Your task to perform on an android device: turn pop-ups off in chrome Image 0: 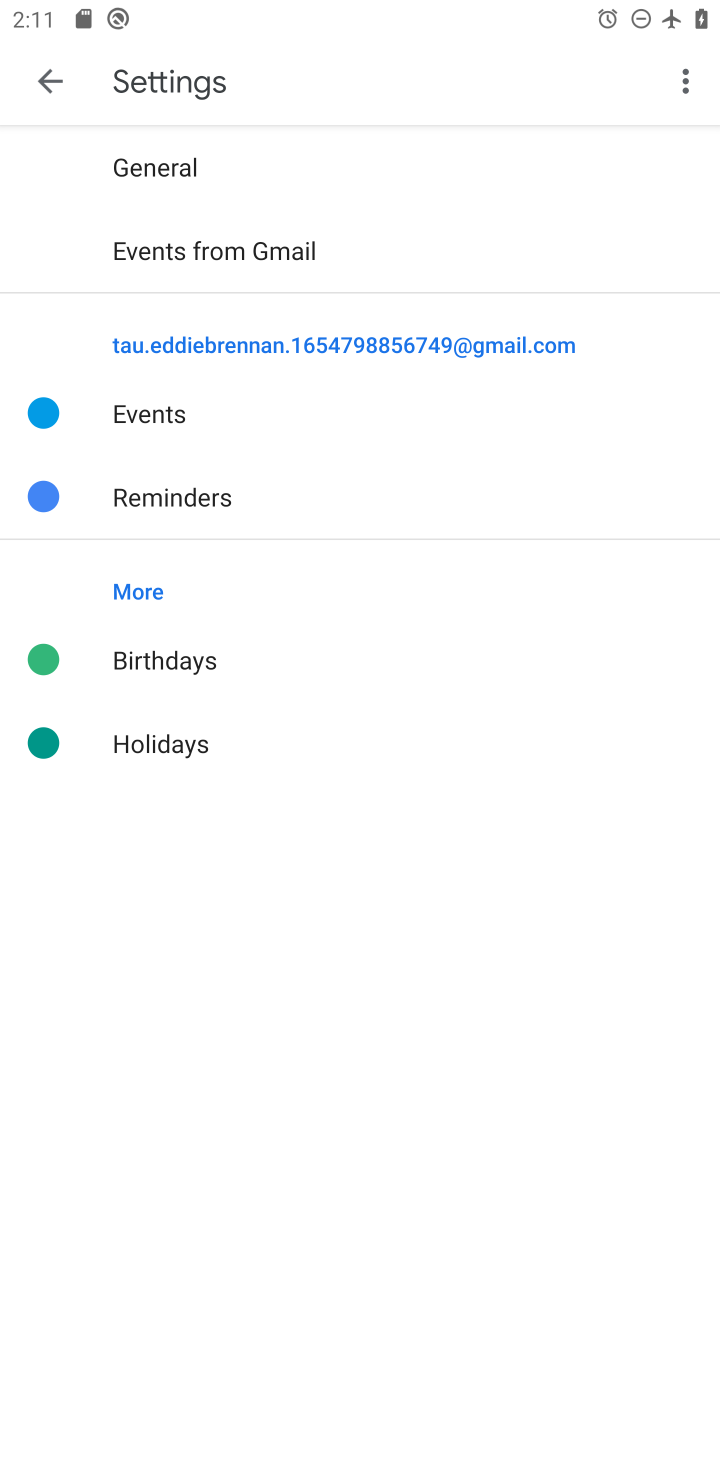
Step 0: press home button
Your task to perform on an android device: turn pop-ups off in chrome Image 1: 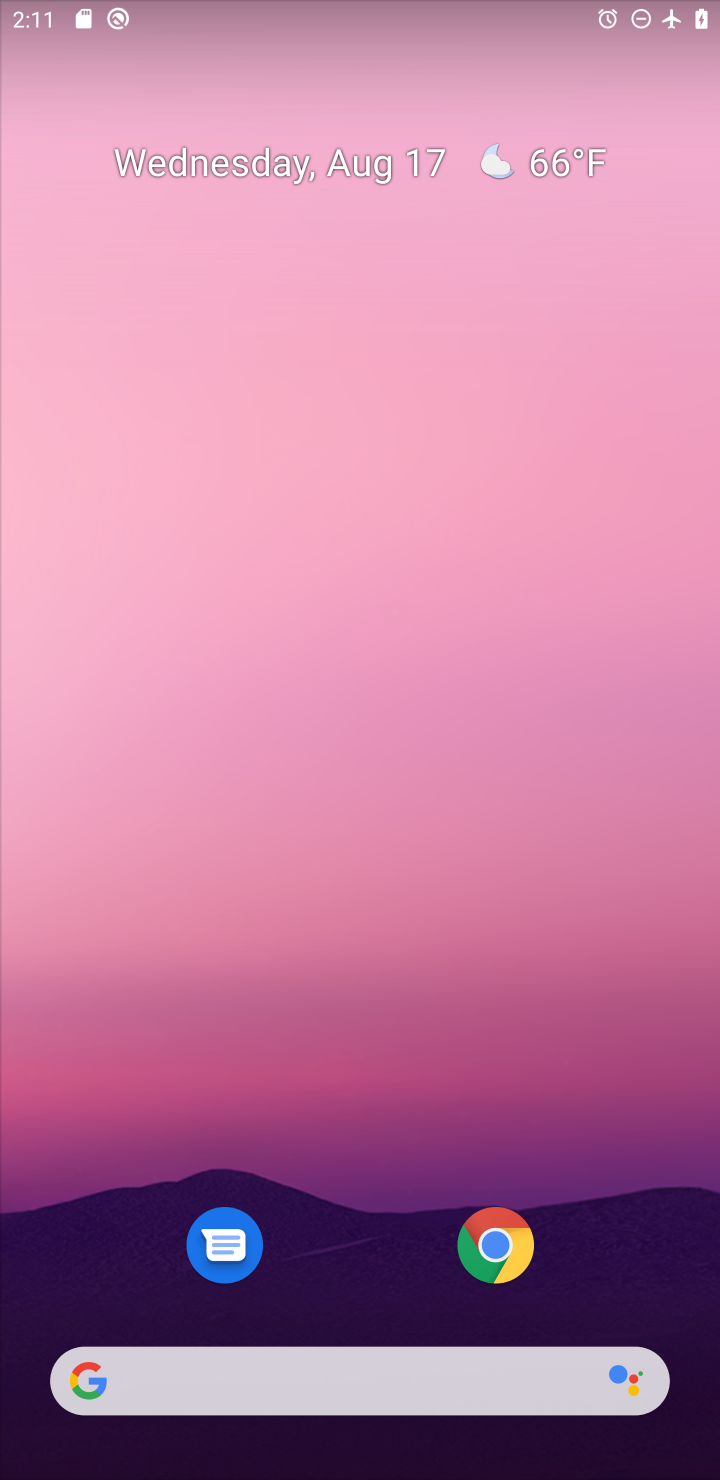
Step 1: drag from (368, 505) to (368, 14)
Your task to perform on an android device: turn pop-ups off in chrome Image 2: 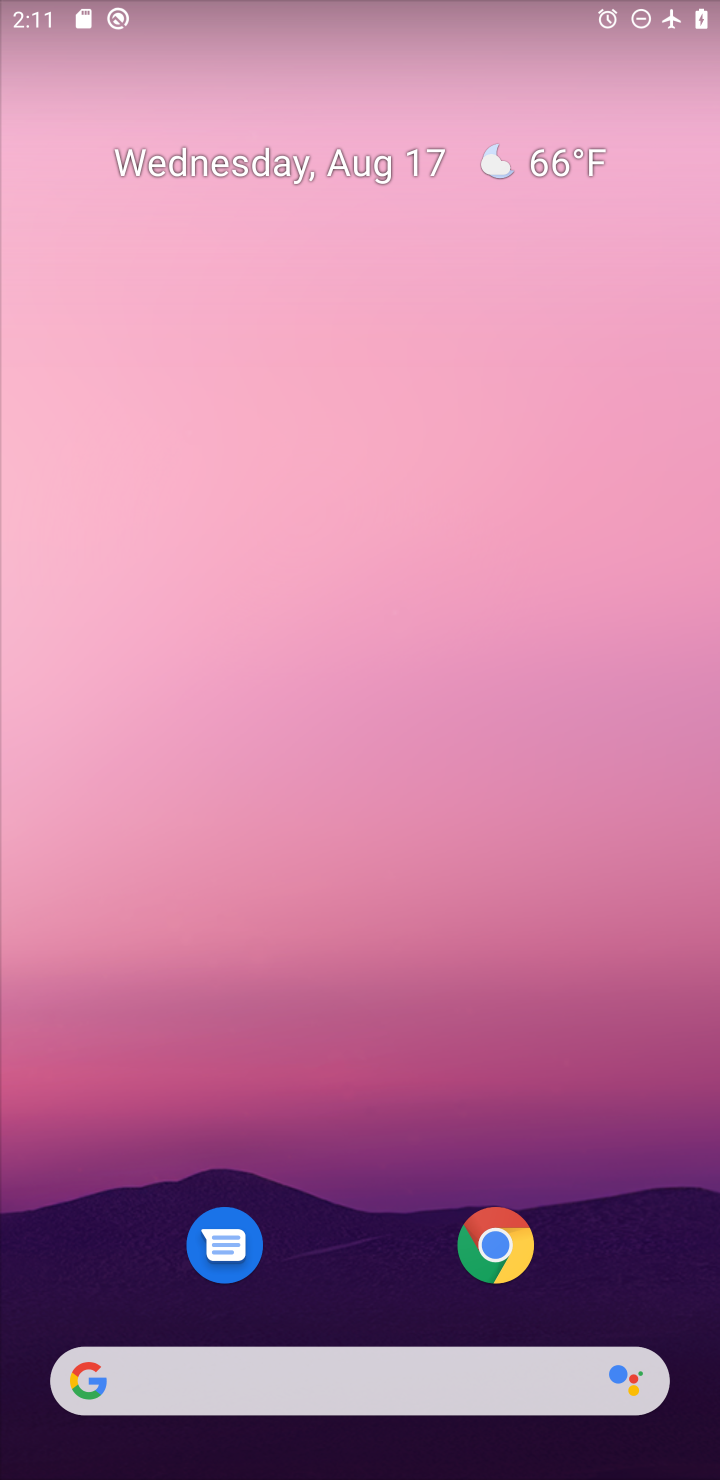
Step 2: drag from (373, 1094) to (371, 121)
Your task to perform on an android device: turn pop-ups off in chrome Image 3: 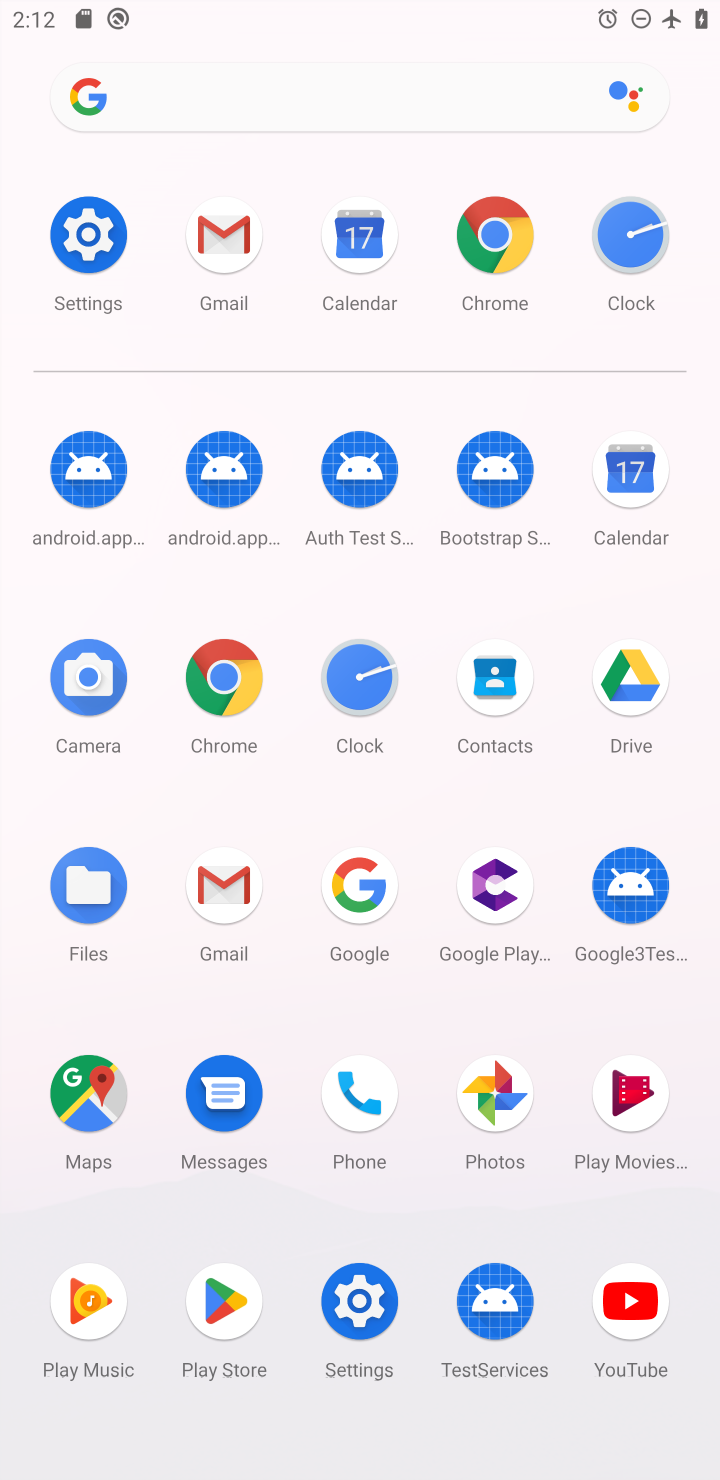
Step 3: click (89, 229)
Your task to perform on an android device: turn pop-ups off in chrome Image 4: 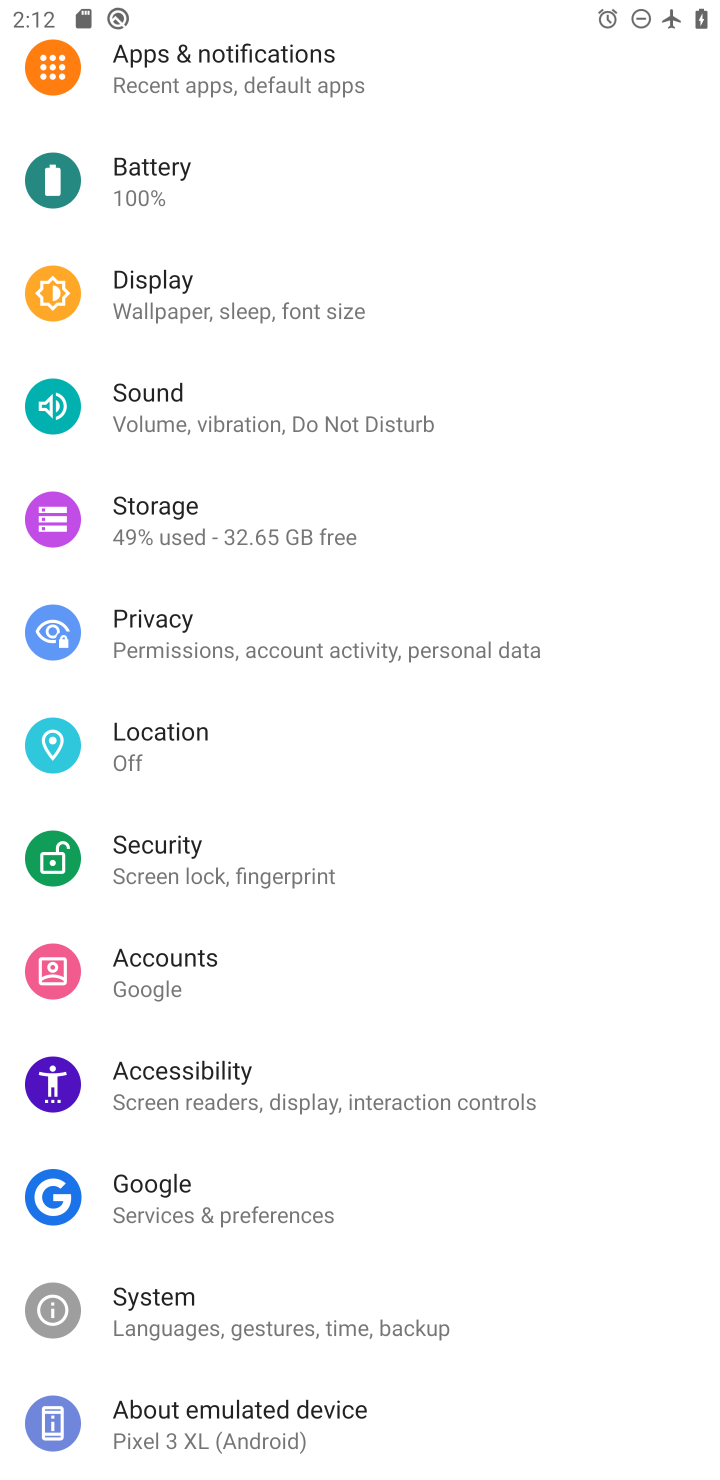
Step 4: drag from (360, 329) to (383, 1240)
Your task to perform on an android device: turn pop-ups off in chrome Image 5: 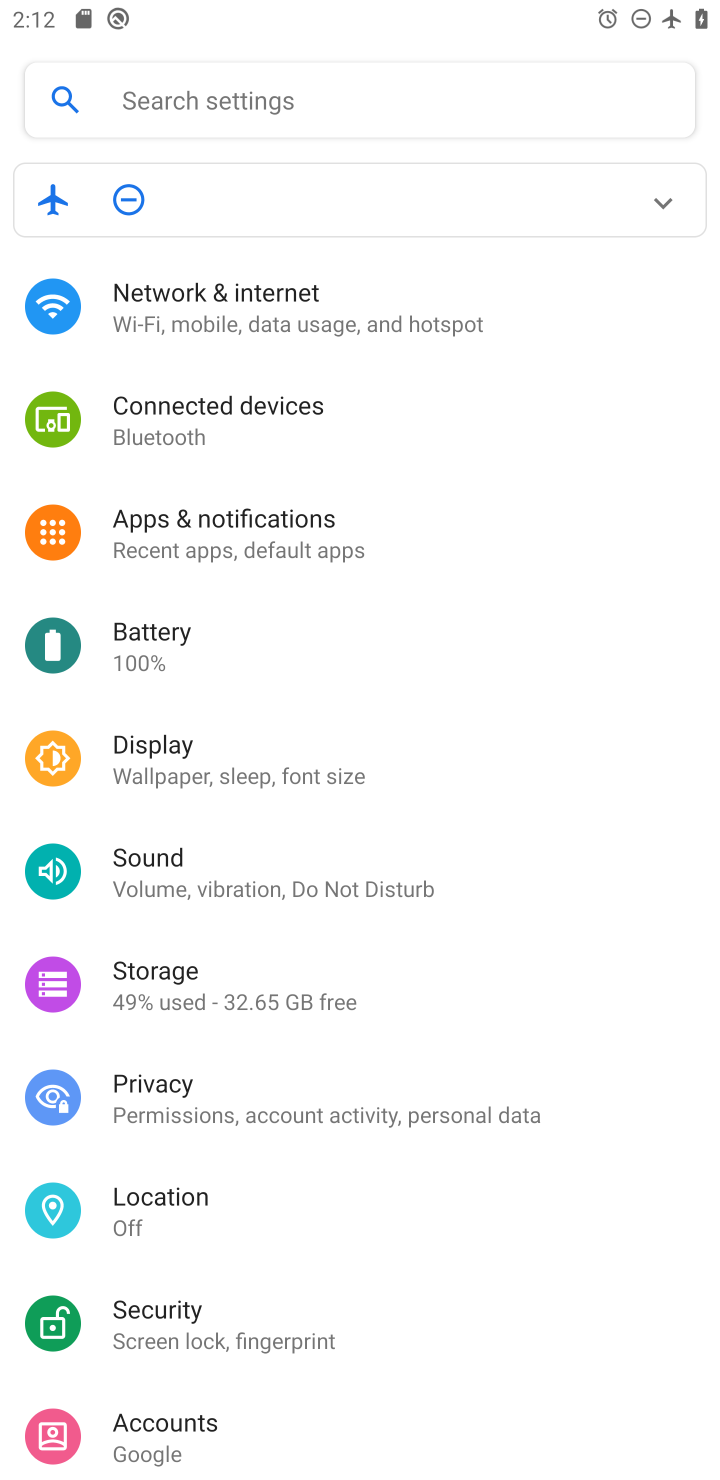
Step 5: click (181, 301)
Your task to perform on an android device: turn pop-ups off in chrome Image 6: 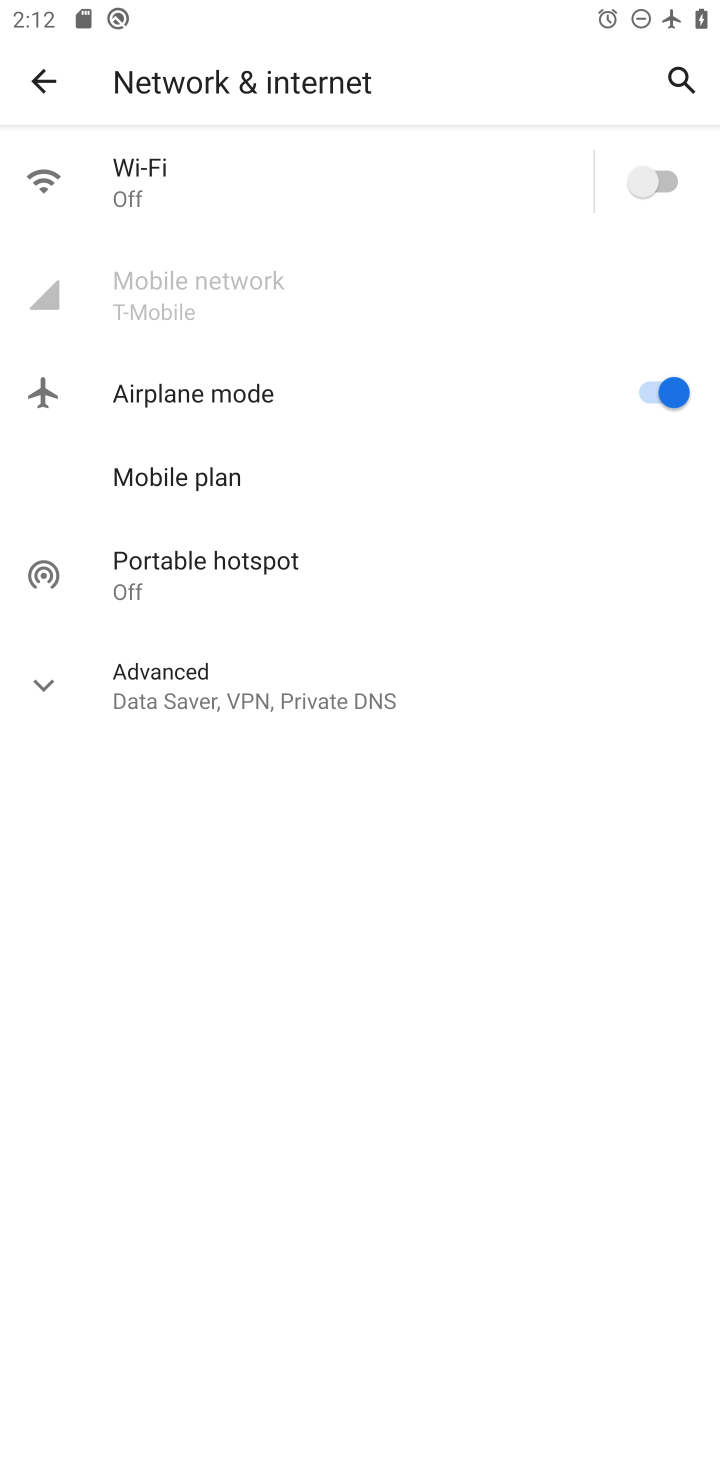
Step 6: click (698, 375)
Your task to perform on an android device: turn pop-ups off in chrome Image 7: 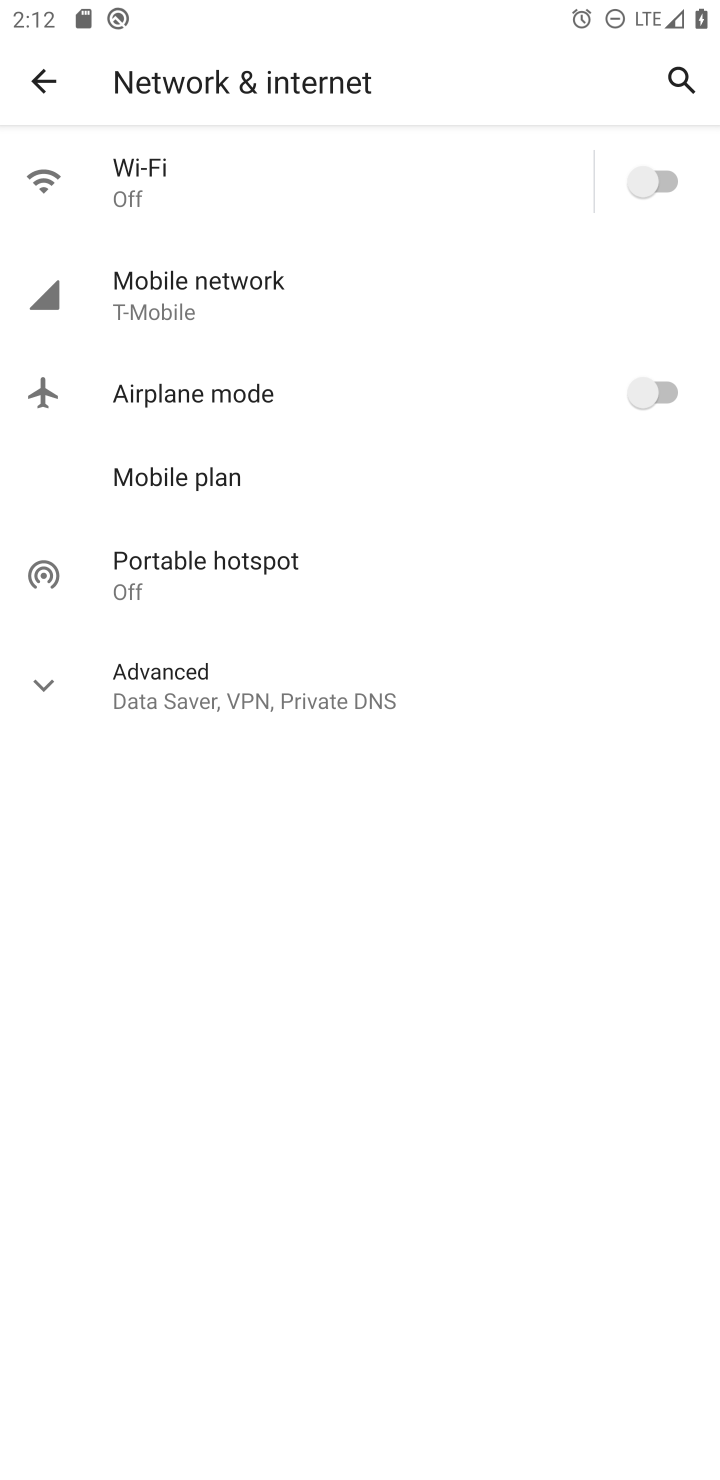
Step 7: press home button
Your task to perform on an android device: turn pop-ups off in chrome Image 8: 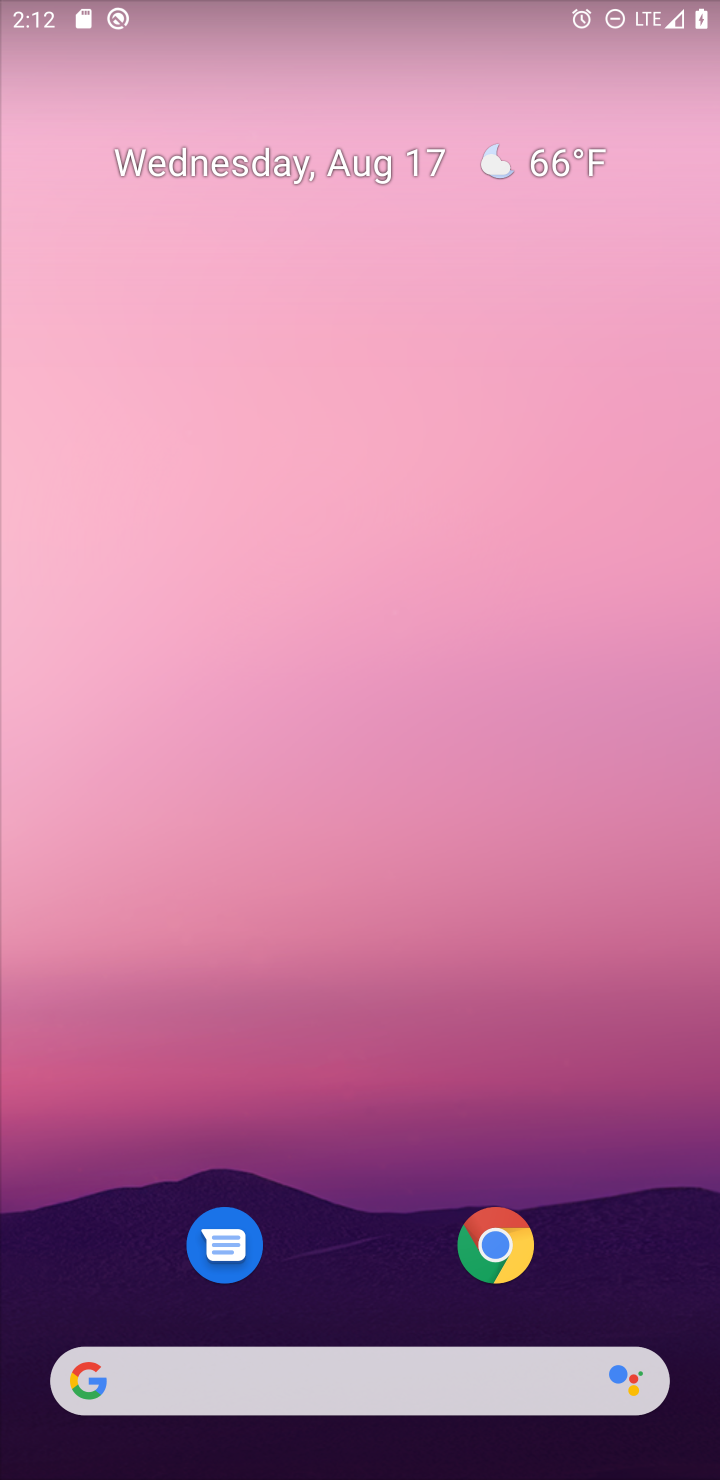
Step 8: click (489, 1234)
Your task to perform on an android device: turn pop-ups off in chrome Image 9: 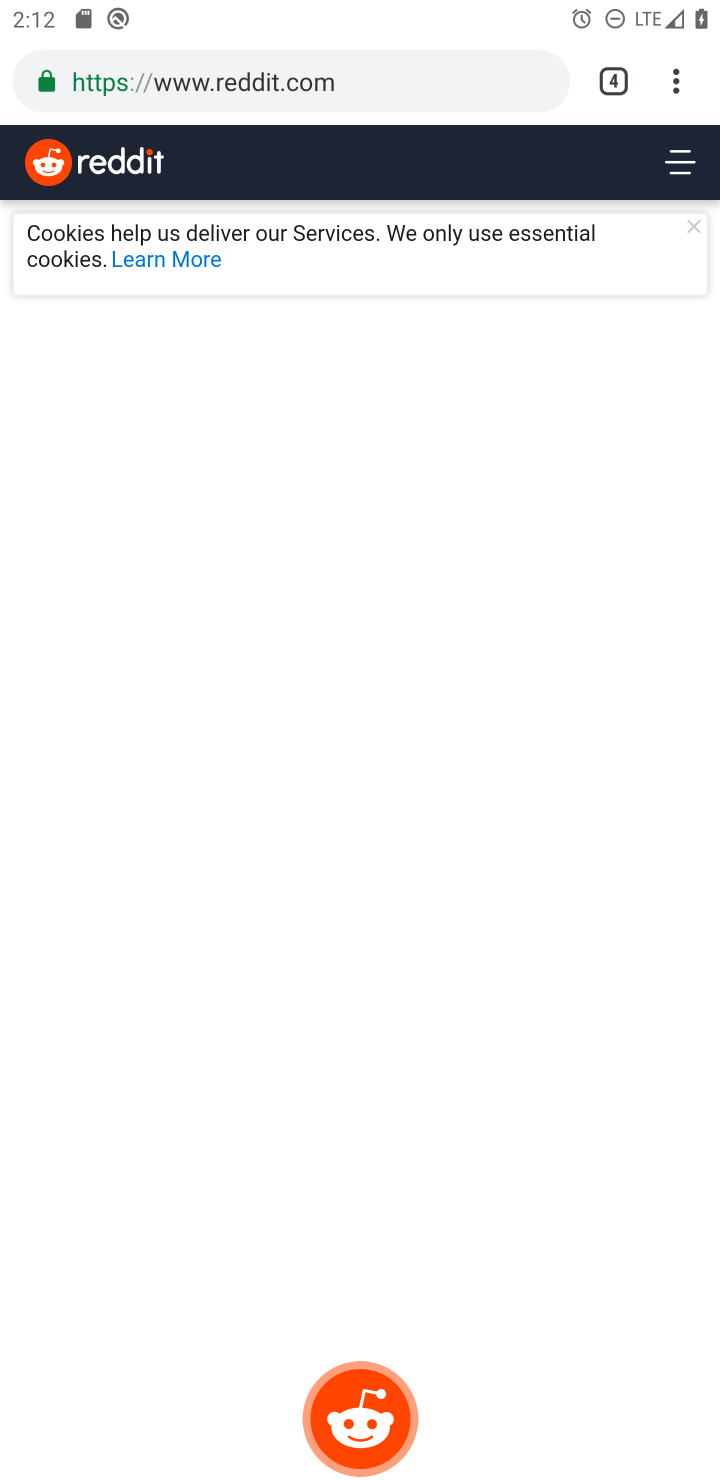
Step 9: click (676, 92)
Your task to perform on an android device: turn pop-ups off in chrome Image 10: 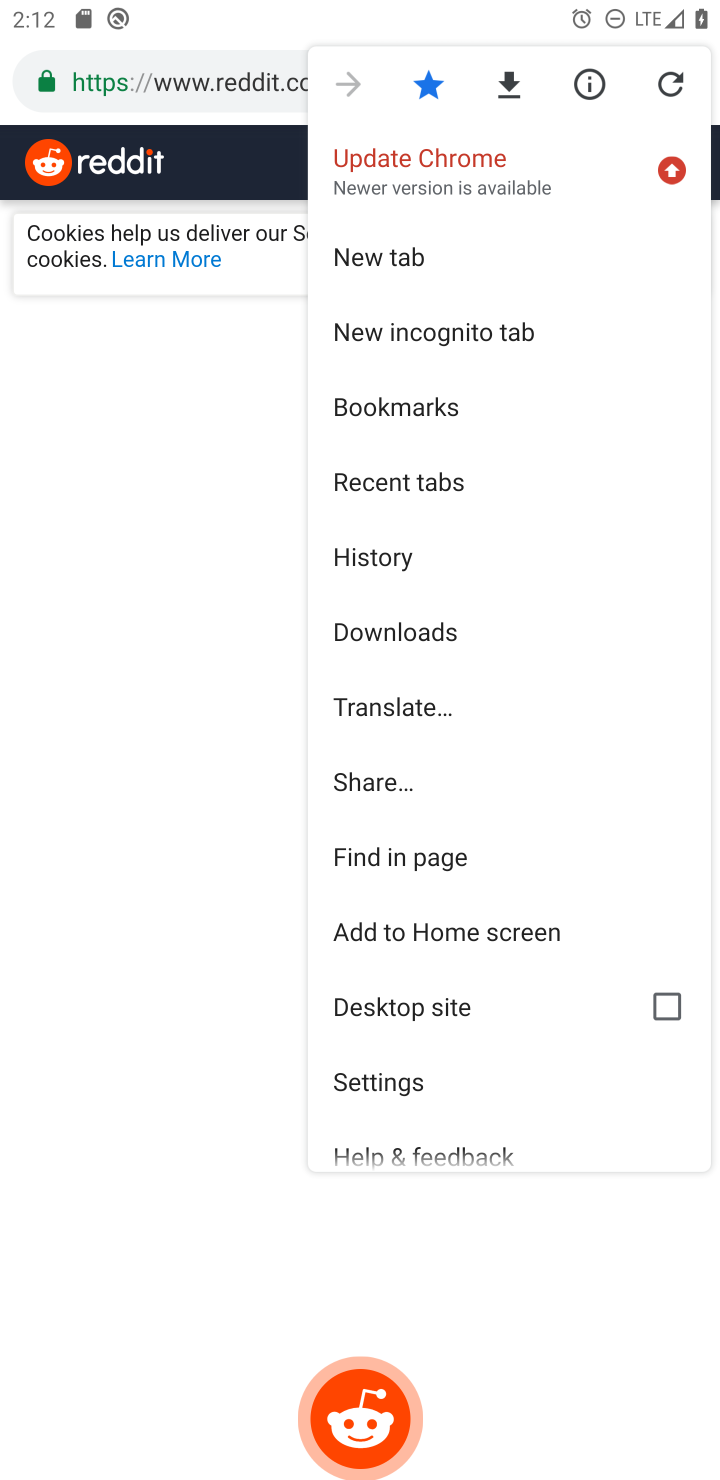
Step 10: click (369, 1076)
Your task to perform on an android device: turn pop-ups off in chrome Image 11: 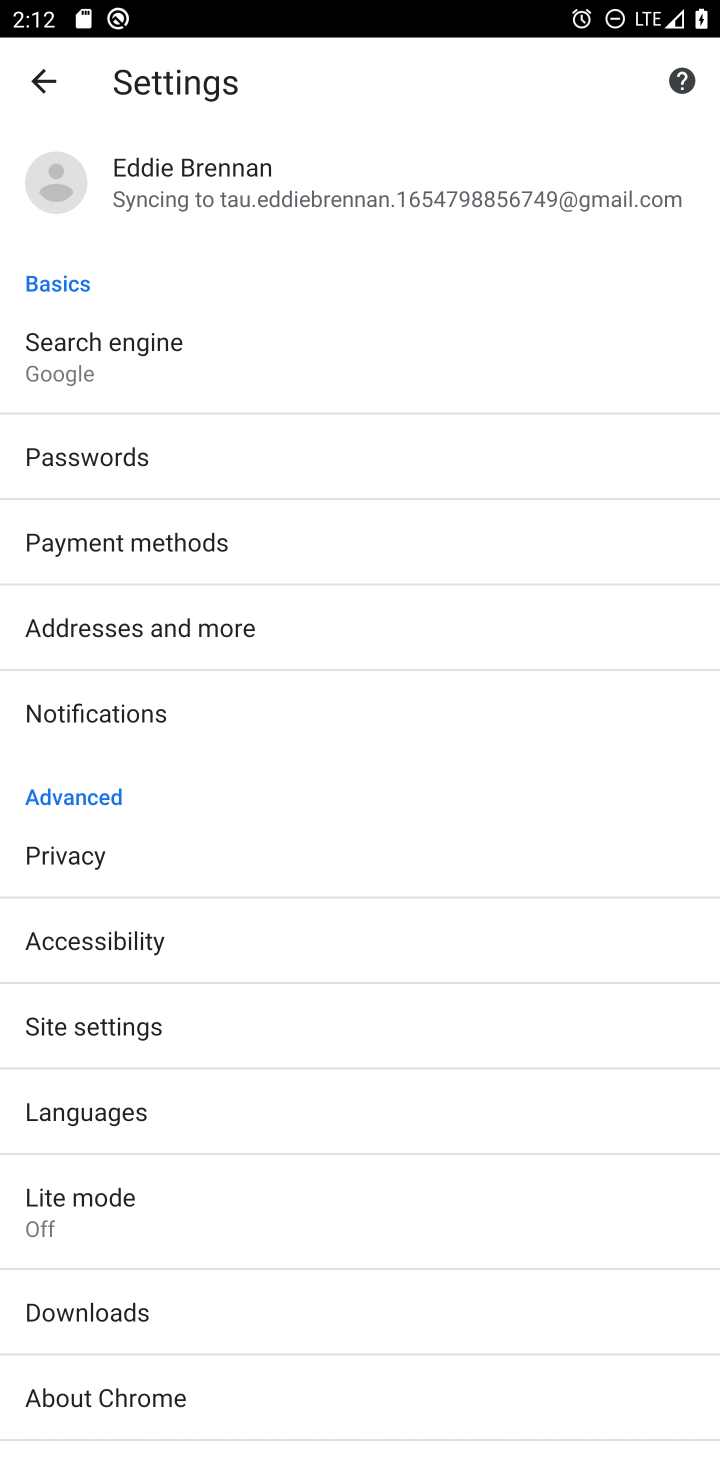
Step 11: click (68, 1032)
Your task to perform on an android device: turn pop-ups off in chrome Image 12: 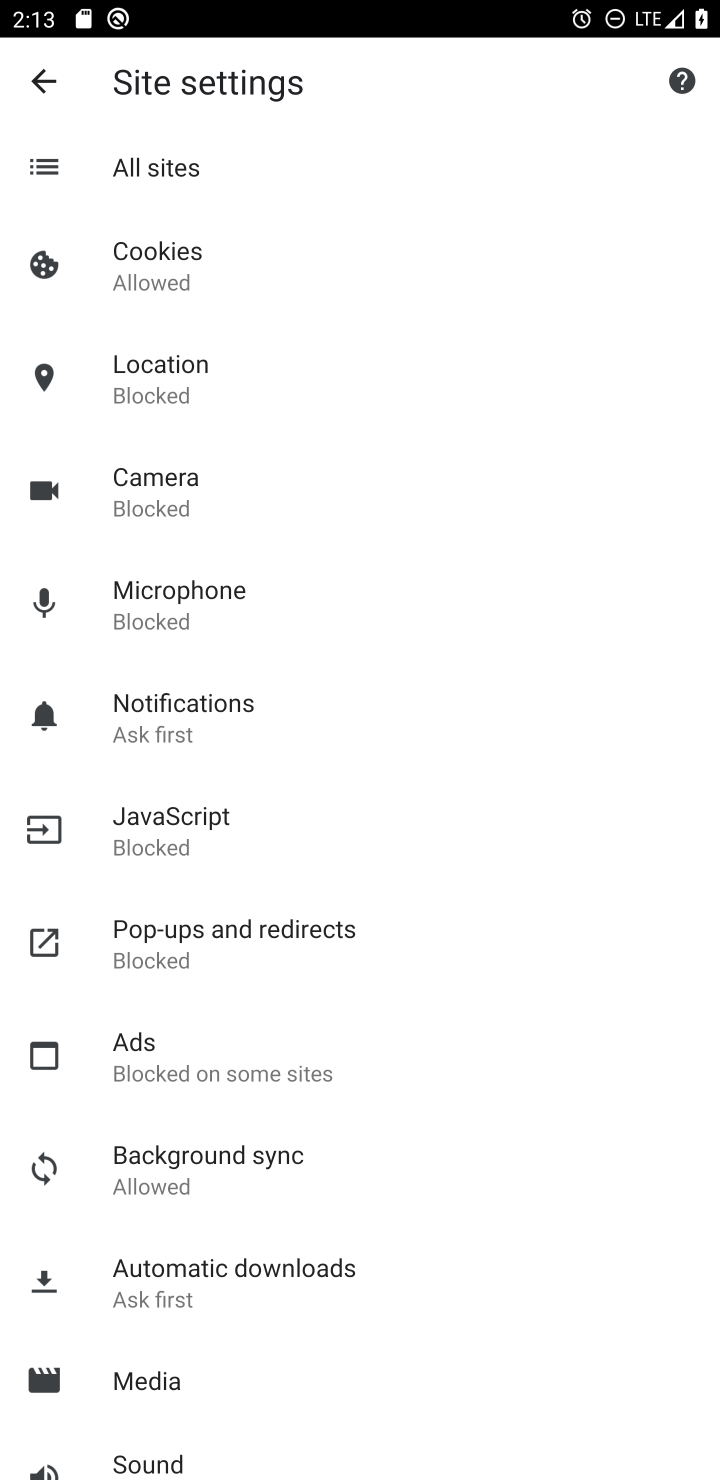
Step 12: click (201, 949)
Your task to perform on an android device: turn pop-ups off in chrome Image 13: 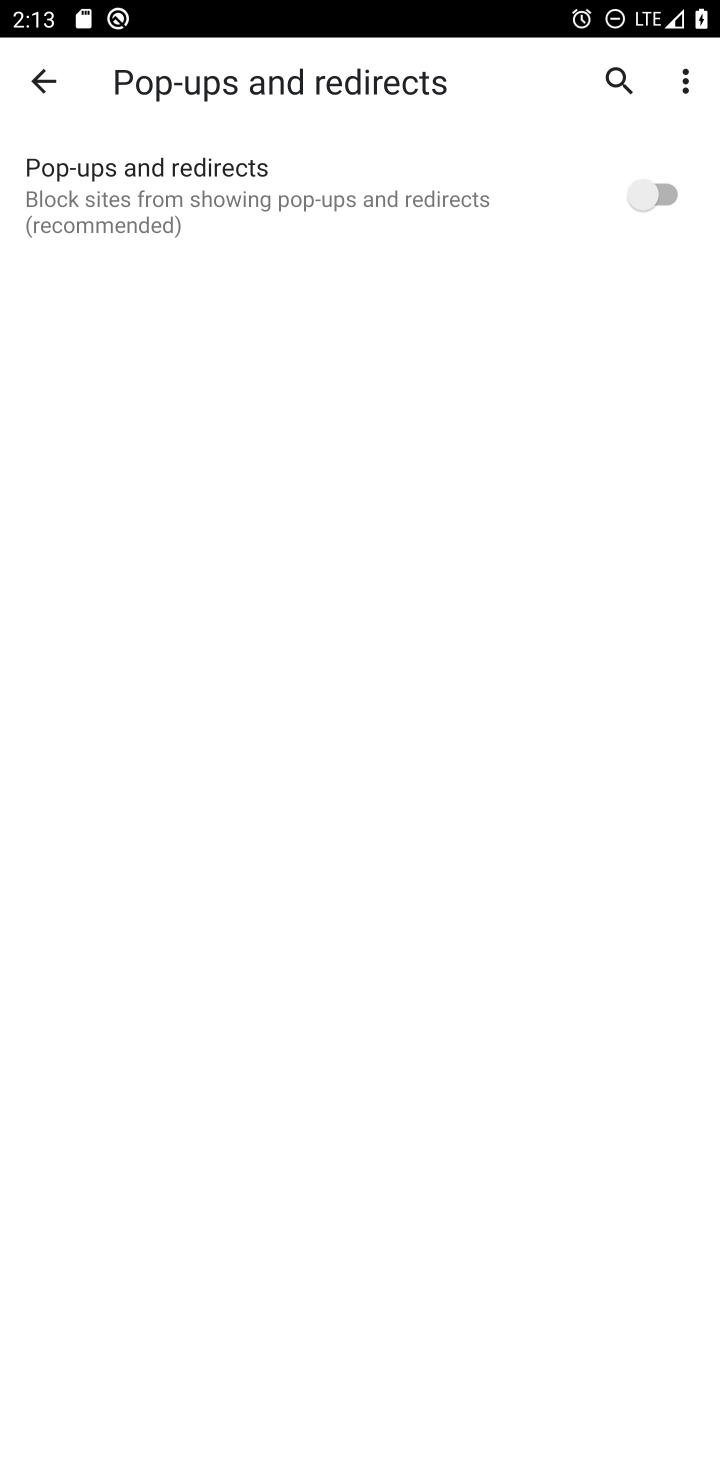
Step 13: task complete